Your task to perform on an android device: add a contact in the contacts app Image 0: 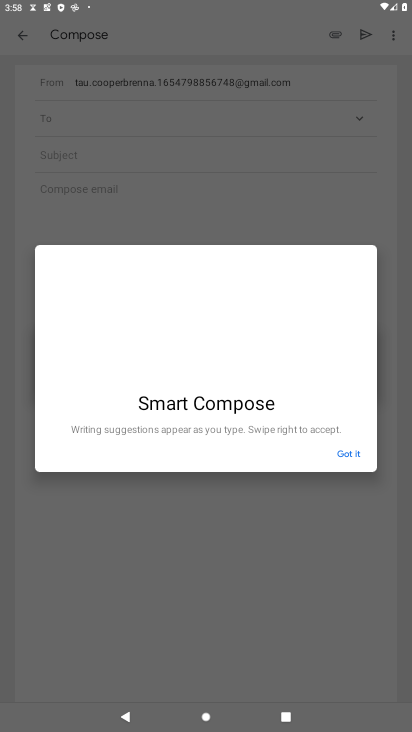
Step 0: press home button
Your task to perform on an android device: add a contact in the contacts app Image 1: 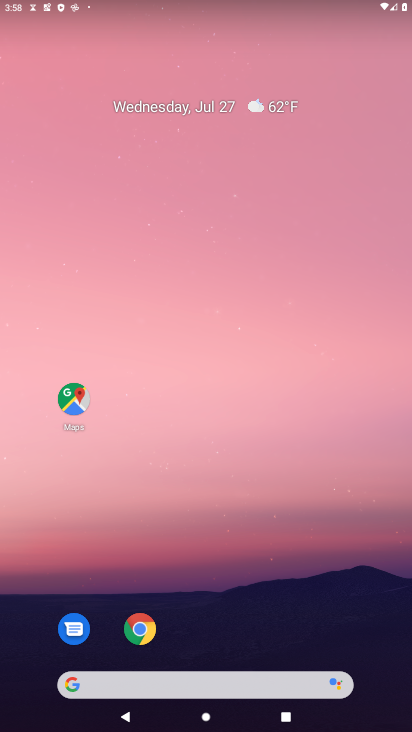
Step 1: drag from (220, 684) to (175, 29)
Your task to perform on an android device: add a contact in the contacts app Image 2: 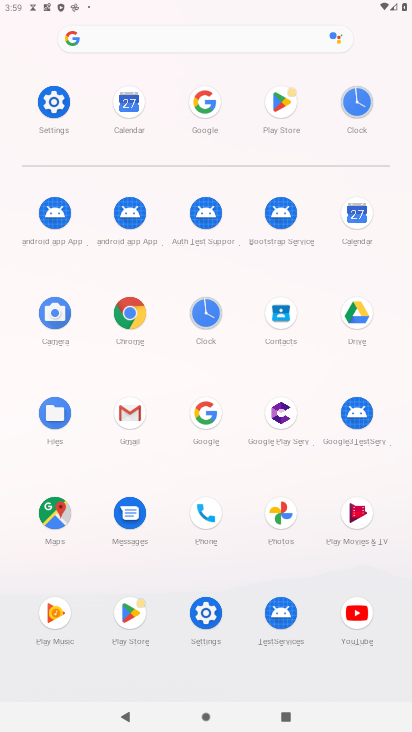
Step 2: click (280, 314)
Your task to perform on an android device: add a contact in the contacts app Image 3: 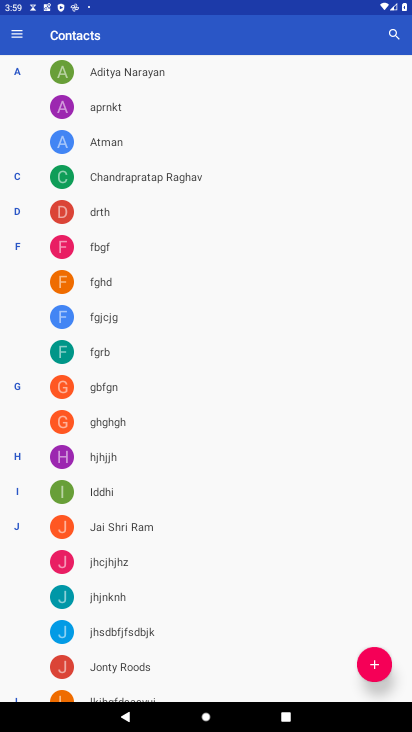
Step 3: click (376, 667)
Your task to perform on an android device: add a contact in the contacts app Image 4: 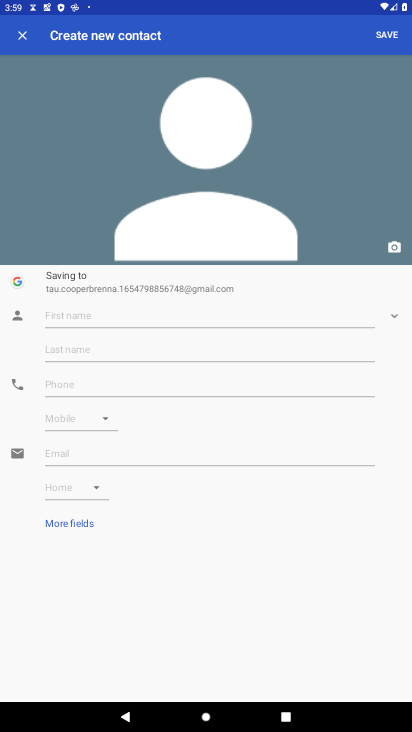
Step 4: type ""
Your task to perform on an android device: add a contact in the contacts app Image 5: 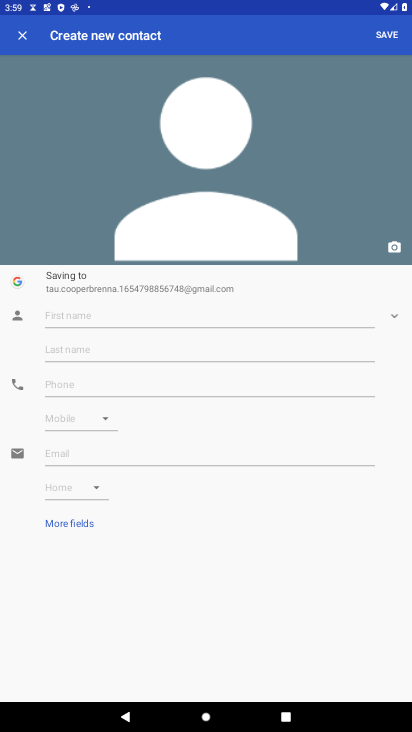
Step 5: click (274, 319)
Your task to perform on an android device: add a contact in the contacts app Image 6: 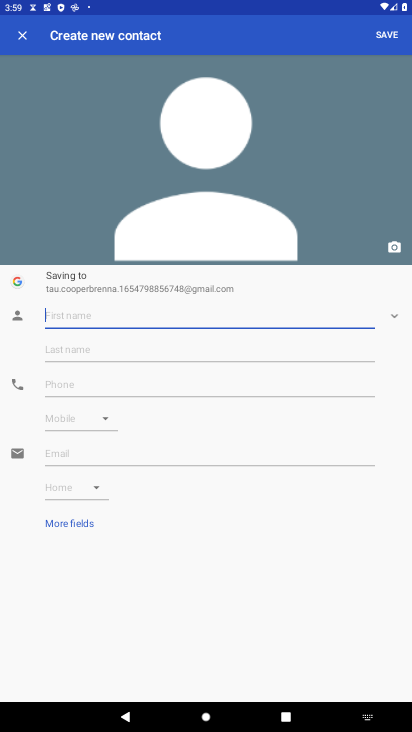
Step 6: type "Kanak"
Your task to perform on an android device: add a contact in the contacts app Image 7: 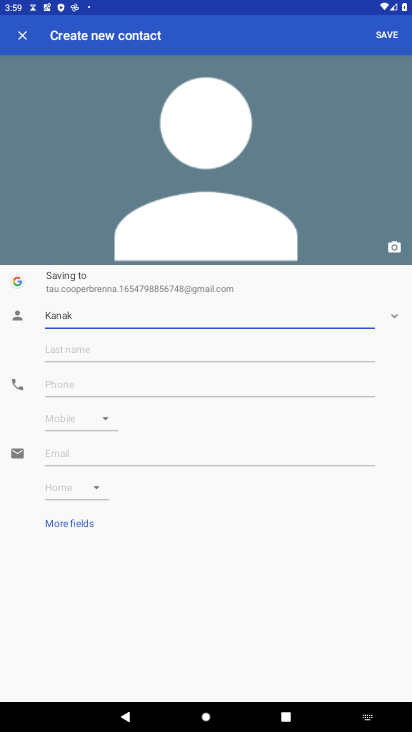
Step 7: click (193, 348)
Your task to perform on an android device: add a contact in the contacts app Image 8: 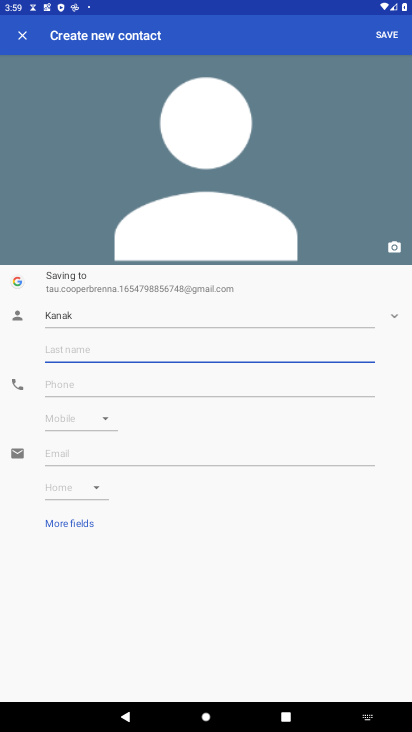
Step 8: type "Sharma"
Your task to perform on an android device: add a contact in the contacts app Image 9: 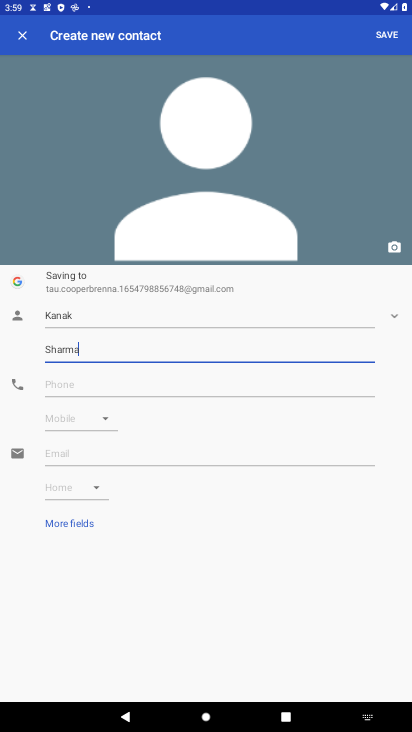
Step 9: click (216, 388)
Your task to perform on an android device: add a contact in the contacts app Image 10: 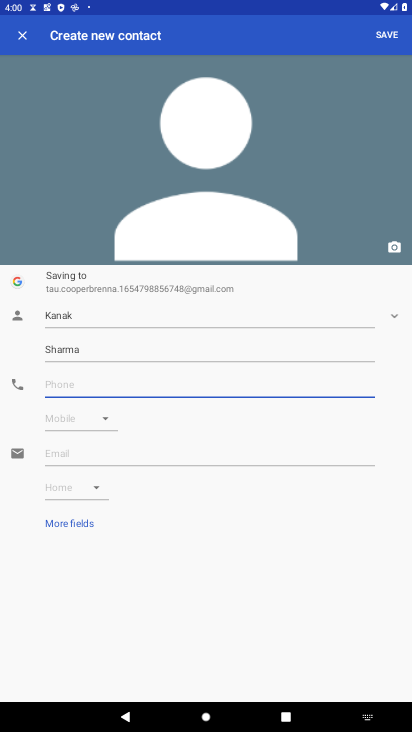
Step 10: type "0987654321"
Your task to perform on an android device: add a contact in the contacts app Image 11: 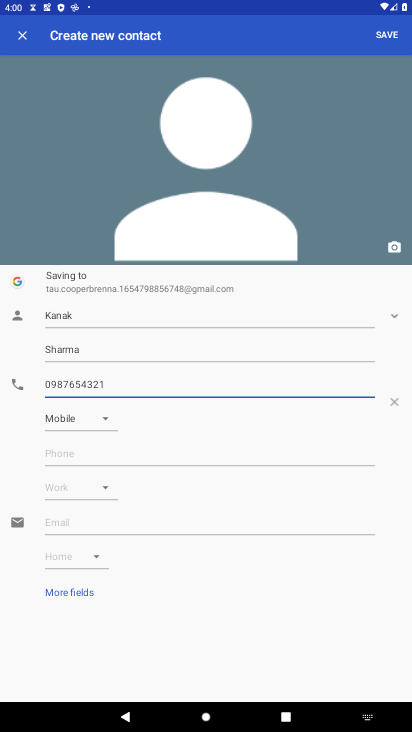
Step 11: click (384, 37)
Your task to perform on an android device: add a contact in the contacts app Image 12: 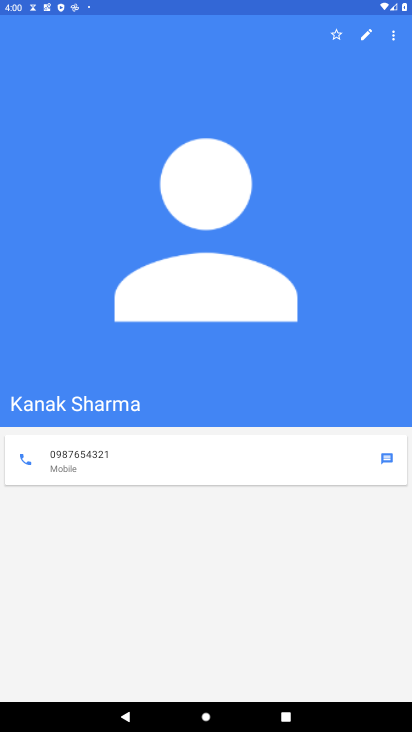
Step 12: task complete